Your task to perform on an android device: Open wifi settings Image 0: 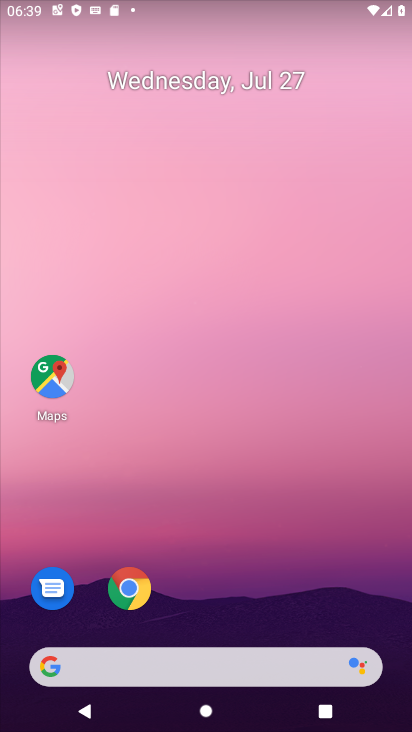
Step 0: drag from (244, 553) to (265, 199)
Your task to perform on an android device: Open wifi settings Image 1: 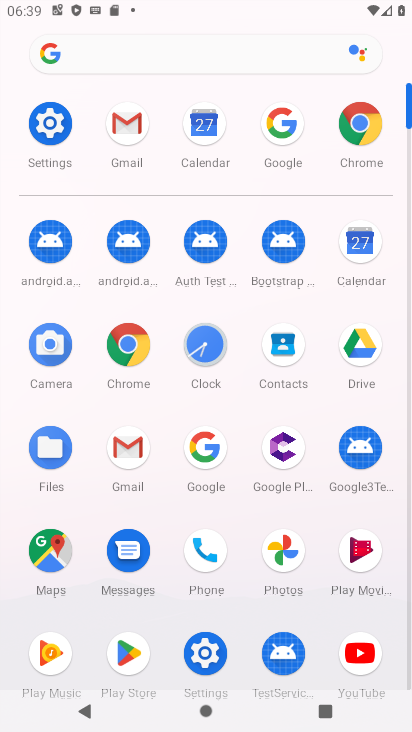
Step 1: click (60, 109)
Your task to perform on an android device: Open wifi settings Image 2: 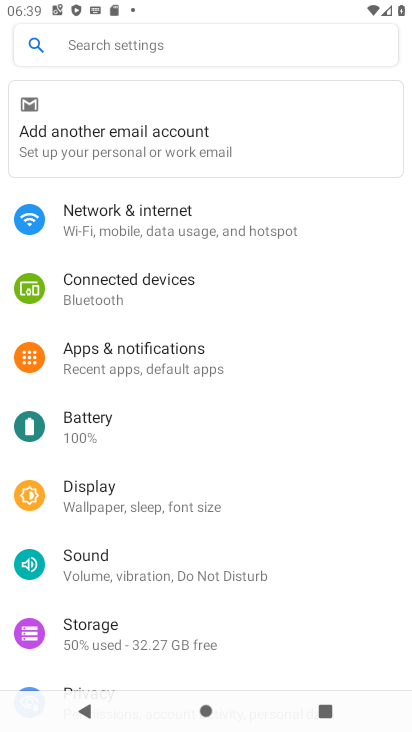
Step 2: click (119, 211)
Your task to perform on an android device: Open wifi settings Image 3: 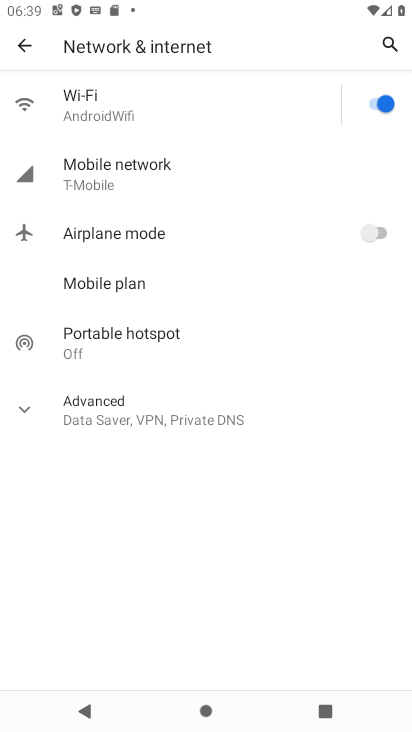
Step 3: click (146, 104)
Your task to perform on an android device: Open wifi settings Image 4: 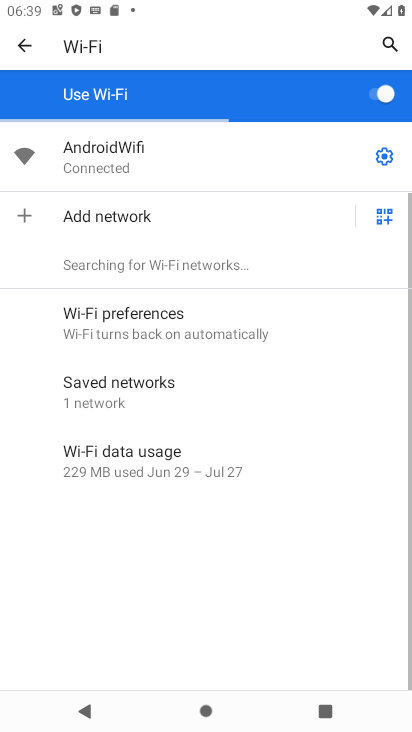
Step 4: task complete